Your task to perform on an android device: empty trash in the gmail app Image 0: 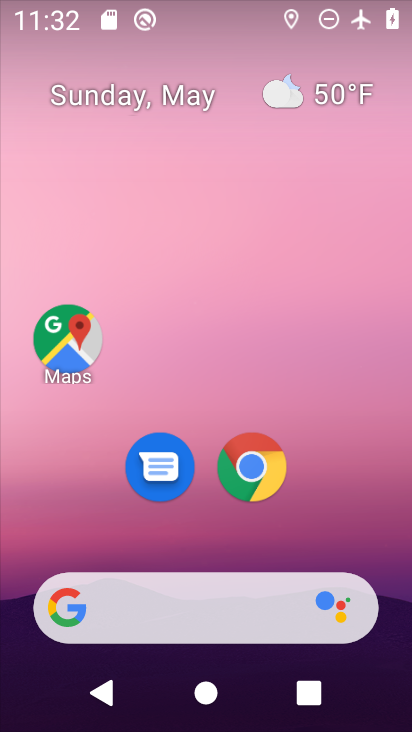
Step 0: drag from (174, 535) to (173, 214)
Your task to perform on an android device: empty trash in the gmail app Image 1: 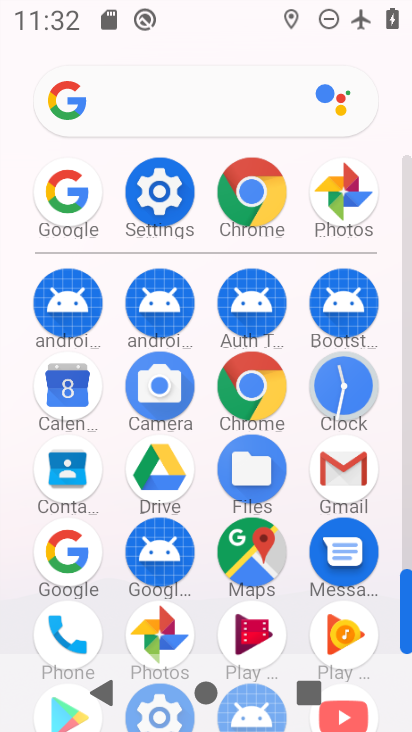
Step 1: click (339, 455)
Your task to perform on an android device: empty trash in the gmail app Image 2: 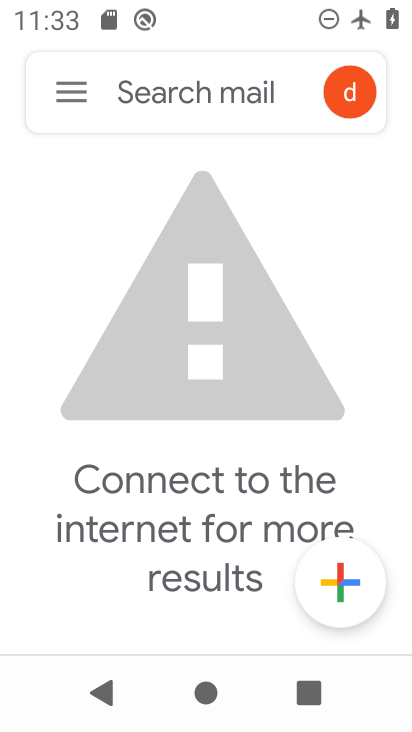
Step 2: click (64, 88)
Your task to perform on an android device: empty trash in the gmail app Image 3: 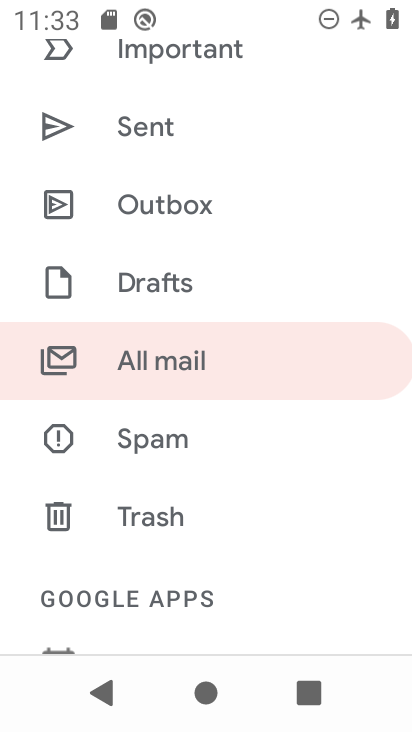
Step 3: click (170, 516)
Your task to perform on an android device: empty trash in the gmail app Image 4: 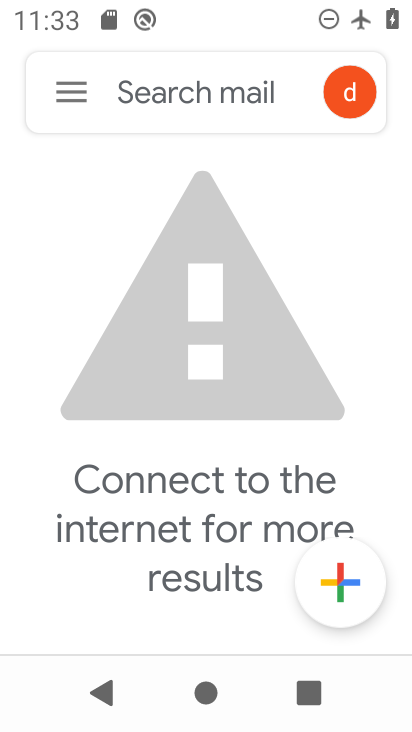
Step 4: click (64, 102)
Your task to perform on an android device: empty trash in the gmail app Image 5: 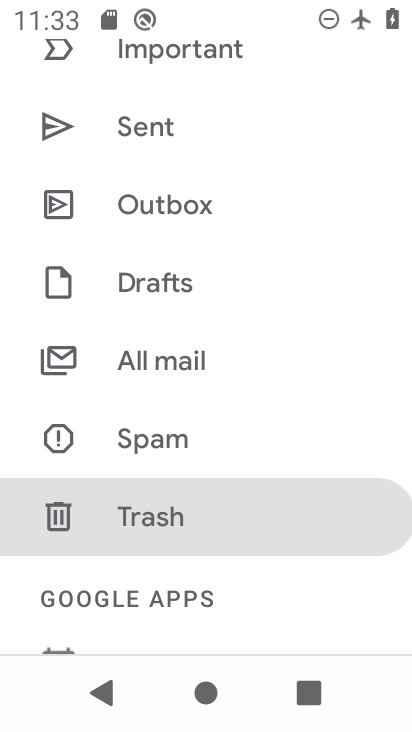
Step 5: click (157, 528)
Your task to perform on an android device: empty trash in the gmail app Image 6: 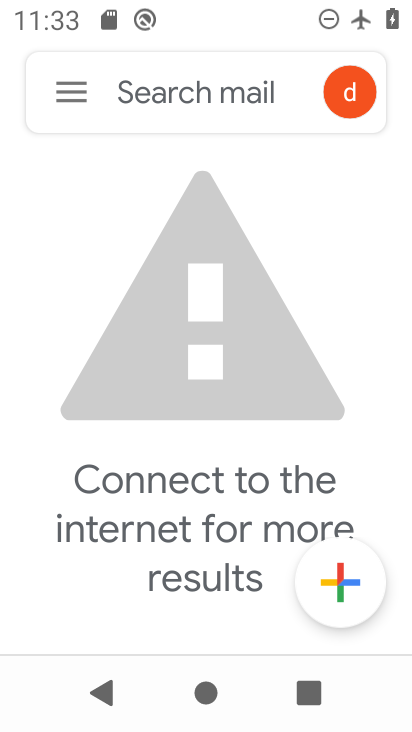
Step 6: task complete